Your task to perform on an android device: Open location settings Image 0: 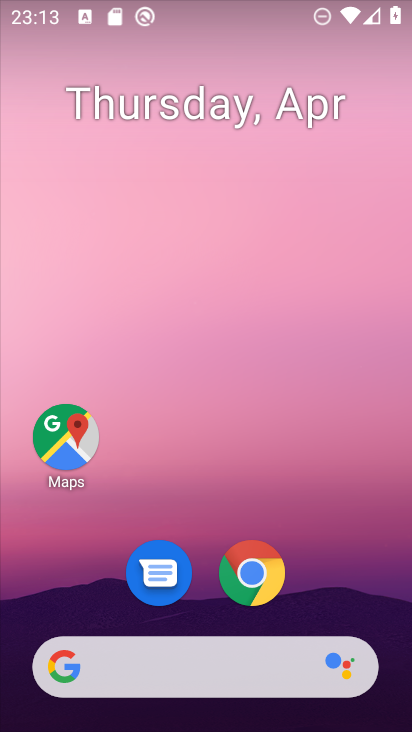
Step 0: drag from (310, 608) to (322, 130)
Your task to perform on an android device: Open location settings Image 1: 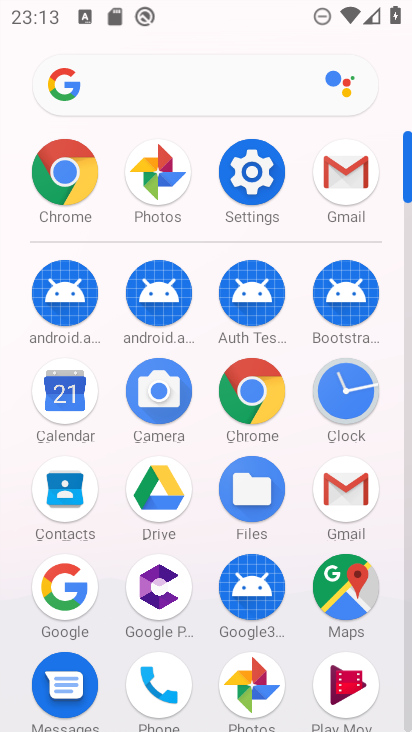
Step 1: click (232, 175)
Your task to perform on an android device: Open location settings Image 2: 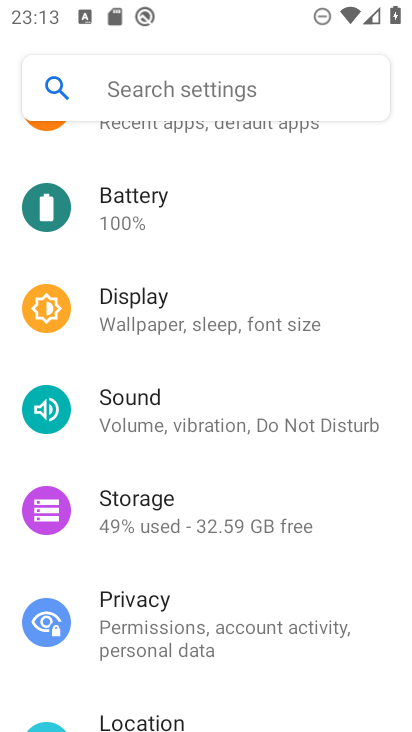
Step 2: drag from (262, 586) to (295, 282)
Your task to perform on an android device: Open location settings Image 3: 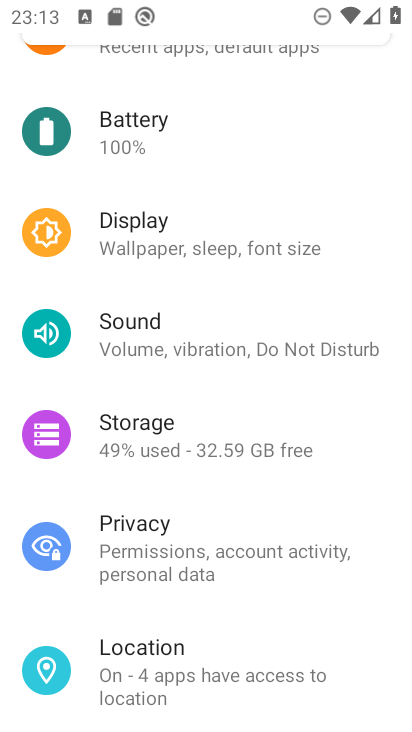
Step 3: click (247, 671)
Your task to perform on an android device: Open location settings Image 4: 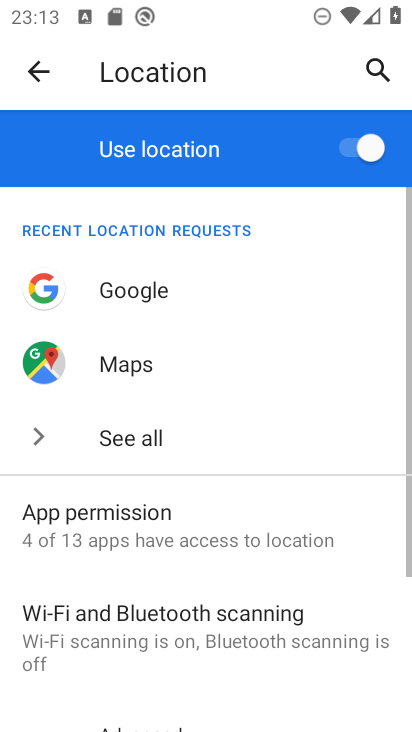
Step 4: task complete